Your task to perform on an android device: delete a single message in the gmail app Image 0: 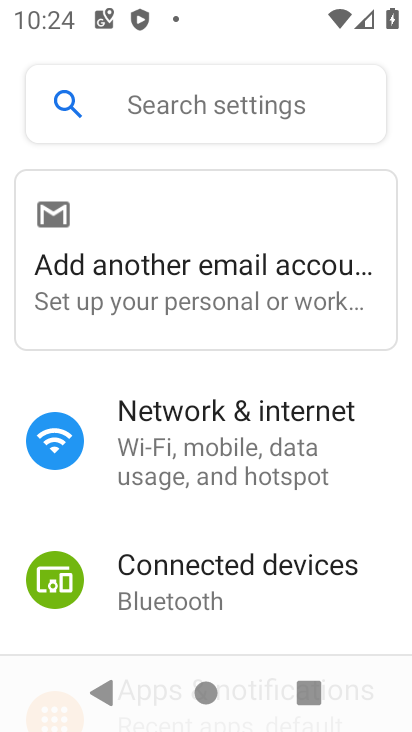
Step 0: press home button
Your task to perform on an android device: delete a single message in the gmail app Image 1: 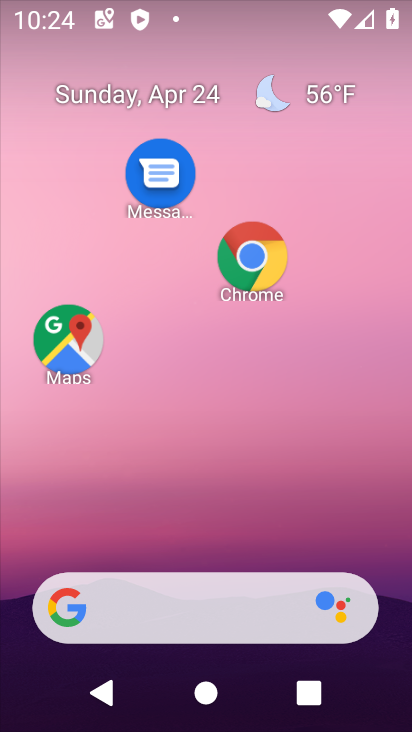
Step 1: drag from (223, 699) to (223, 144)
Your task to perform on an android device: delete a single message in the gmail app Image 2: 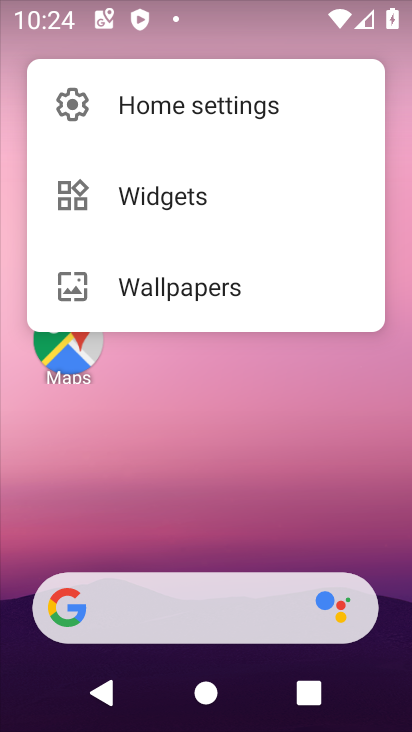
Step 2: click (211, 432)
Your task to perform on an android device: delete a single message in the gmail app Image 3: 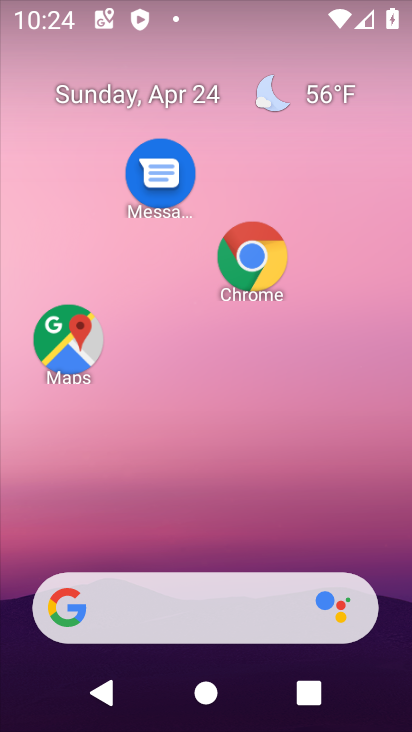
Step 3: drag from (217, 727) to (221, 100)
Your task to perform on an android device: delete a single message in the gmail app Image 4: 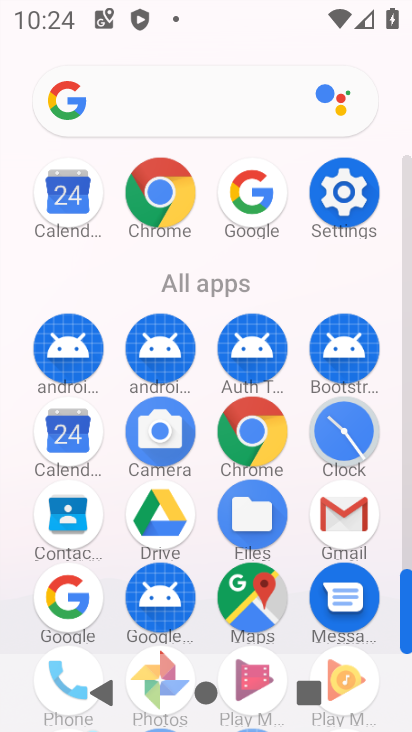
Step 4: click (344, 522)
Your task to perform on an android device: delete a single message in the gmail app Image 5: 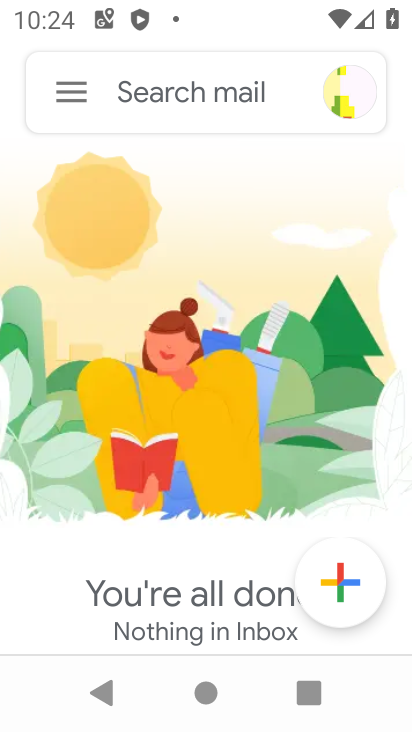
Step 5: task complete